Your task to perform on an android device: show emergency info Image 0: 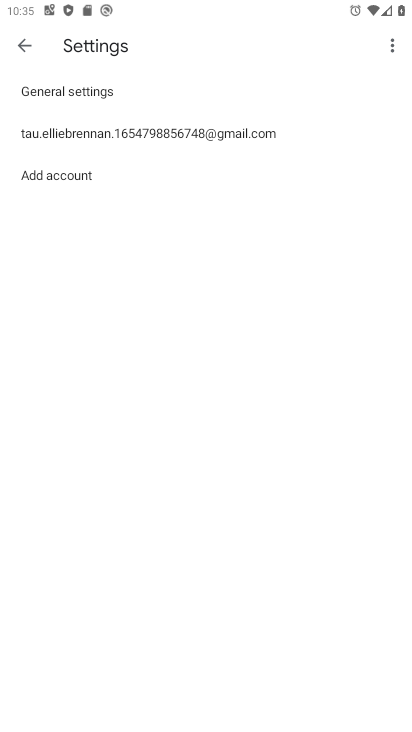
Step 0: press home button
Your task to perform on an android device: show emergency info Image 1: 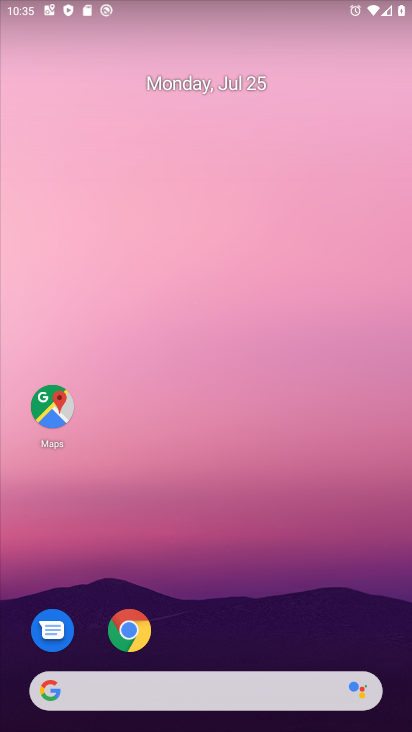
Step 1: drag from (210, 696) to (205, 20)
Your task to perform on an android device: show emergency info Image 2: 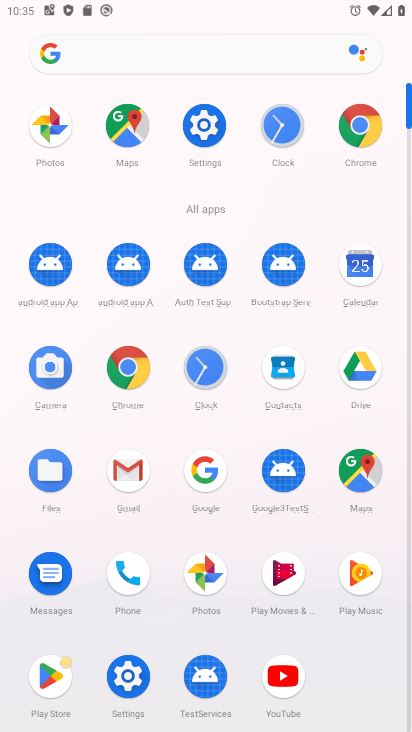
Step 2: click (124, 661)
Your task to perform on an android device: show emergency info Image 3: 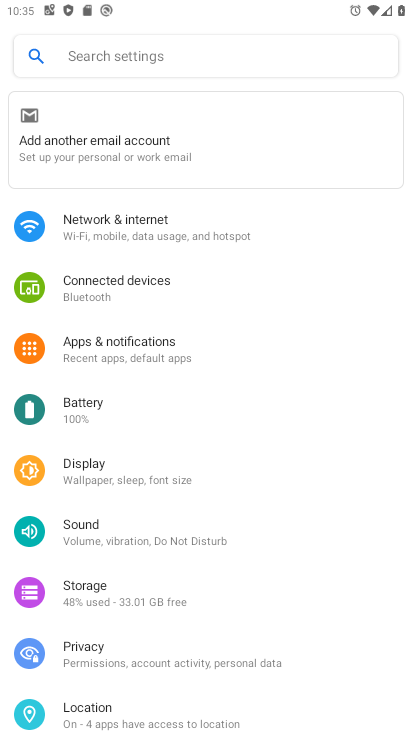
Step 3: drag from (193, 689) to (213, 76)
Your task to perform on an android device: show emergency info Image 4: 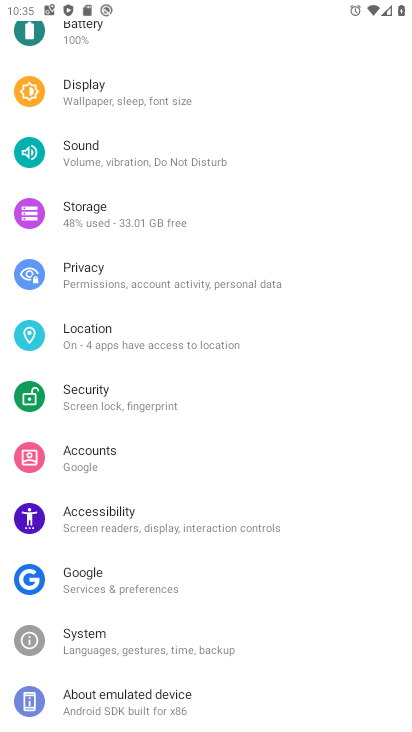
Step 4: drag from (178, 620) to (144, 223)
Your task to perform on an android device: show emergency info Image 5: 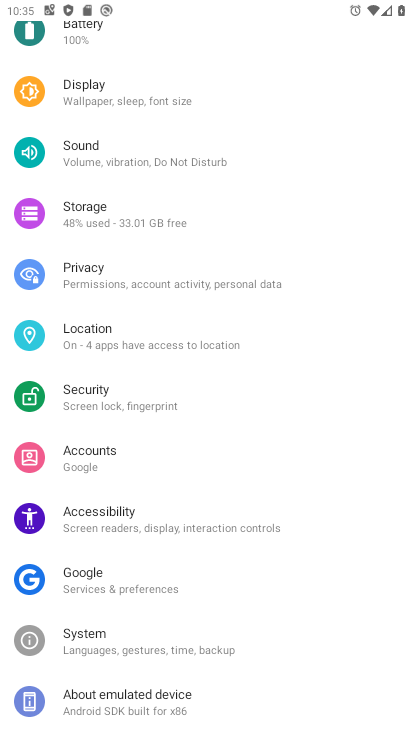
Step 5: click (106, 714)
Your task to perform on an android device: show emergency info Image 6: 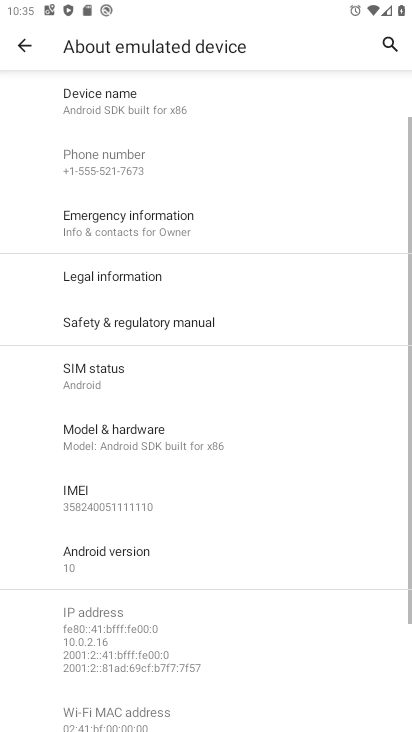
Step 6: click (167, 221)
Your task to perform on an android device: show emergency info Image 7: 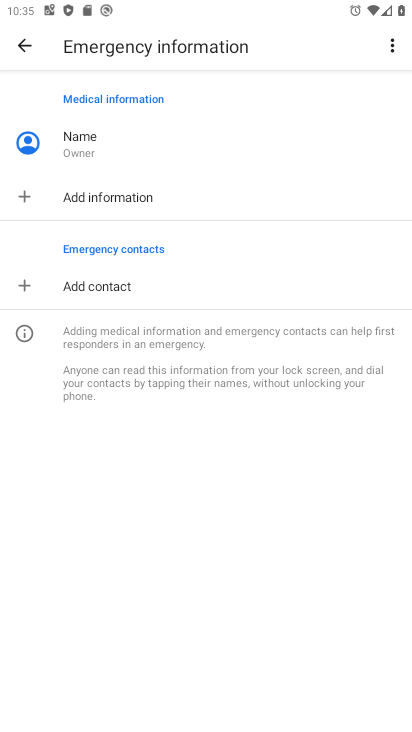
Step 7: task complete